Your task to perform on an android device: set the stopwatch Image 0: 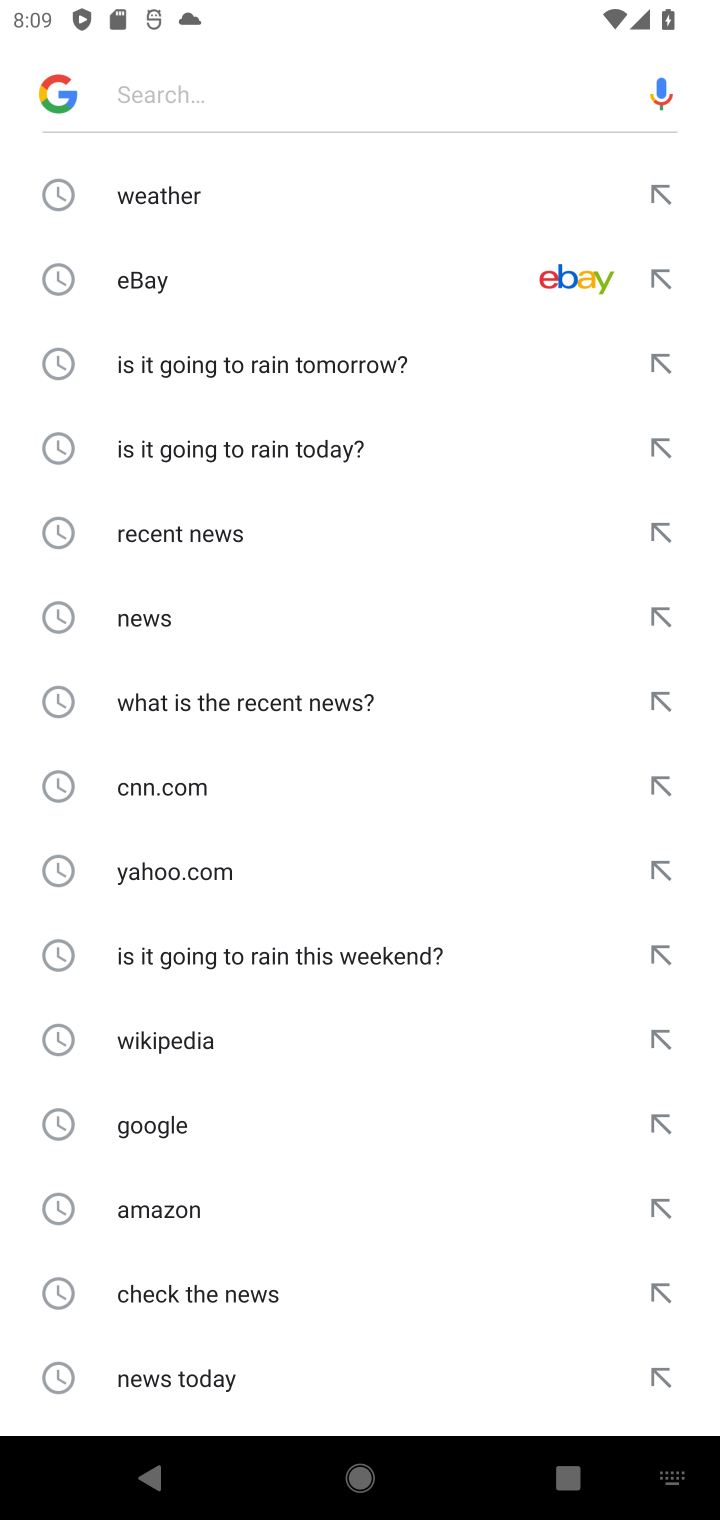
Step 0: press home button
Your task to perform on an android device: set the stopwatch Image 1: 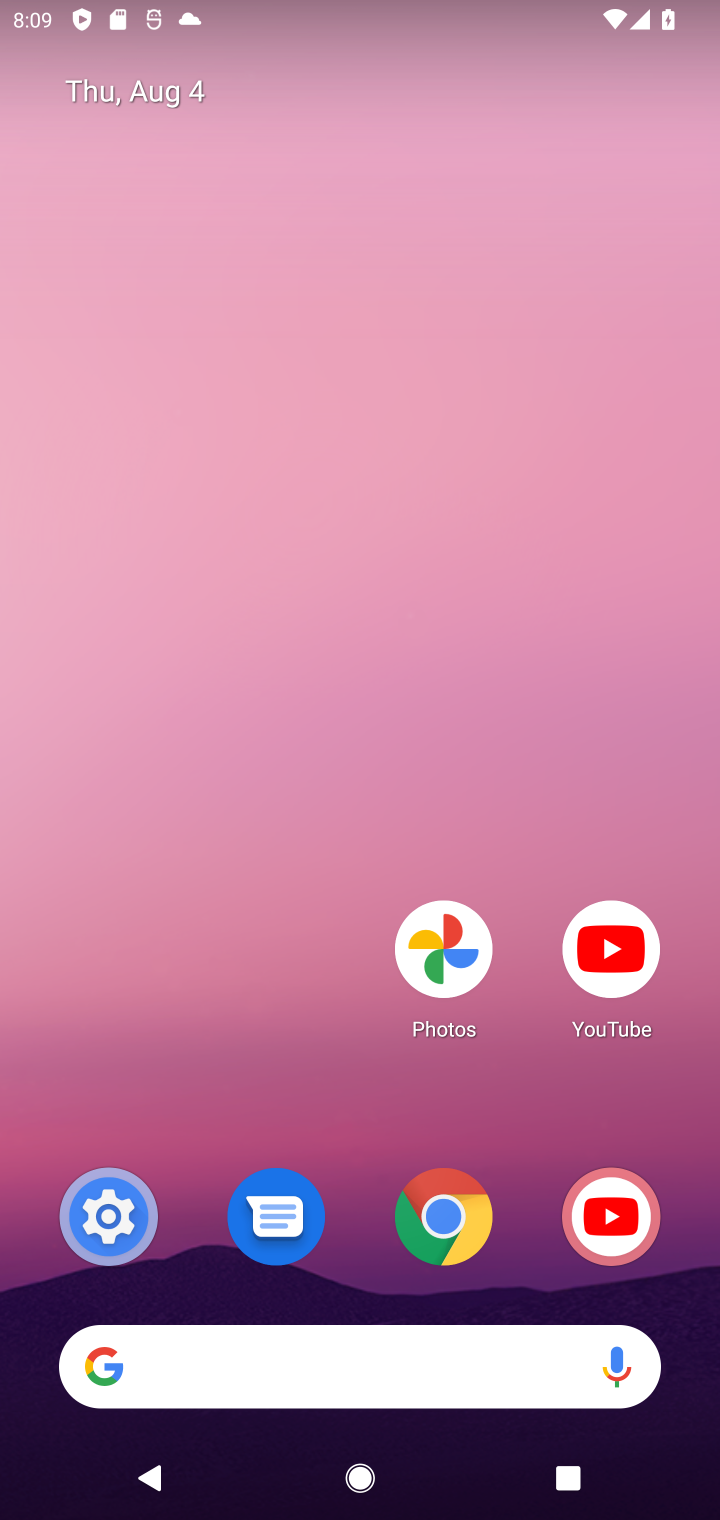
Step 1: drag from (366, 1316) to (270, 434)
Your task to perform on an android device: set the stopwatch Image 2: 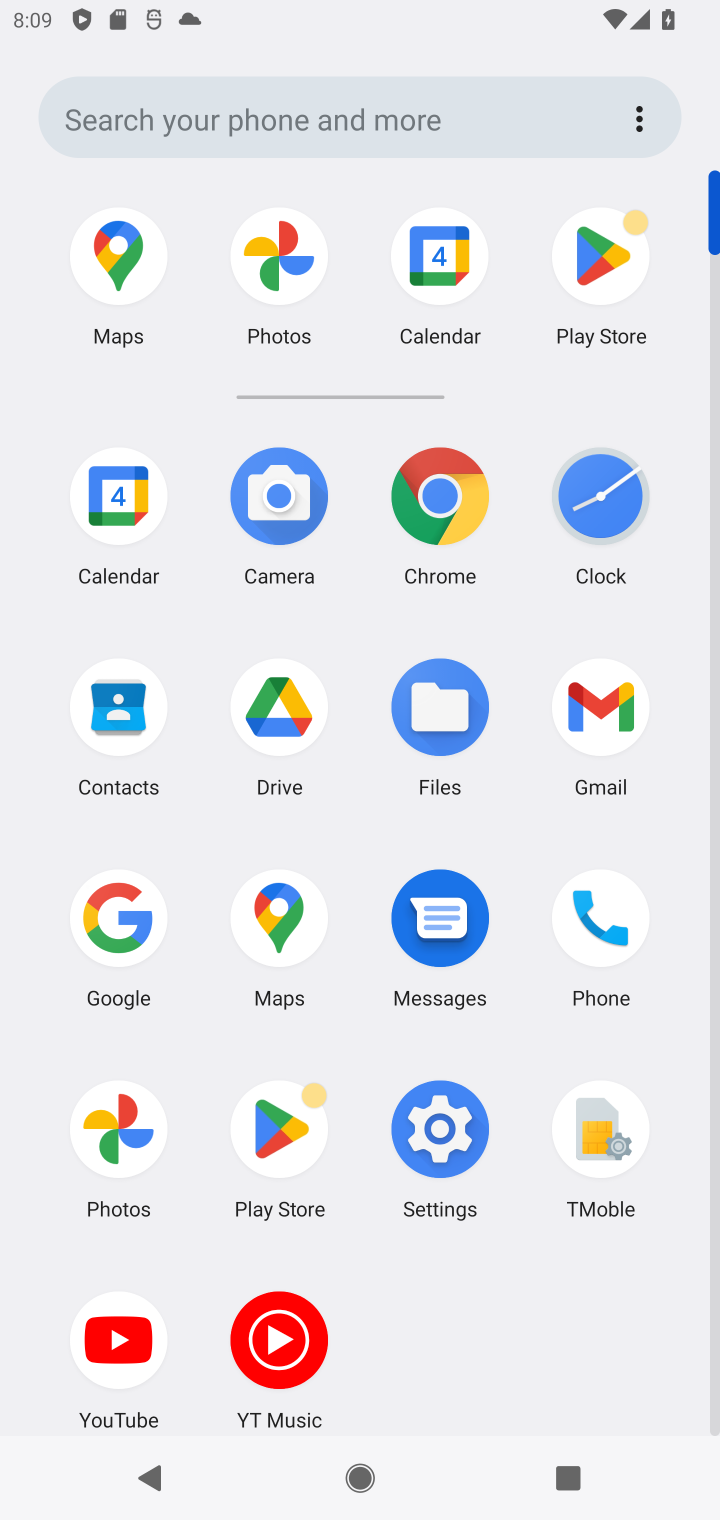
Step 2: click (597, 496)
Your task to perform on an android device: set the stopwatch Image 3: 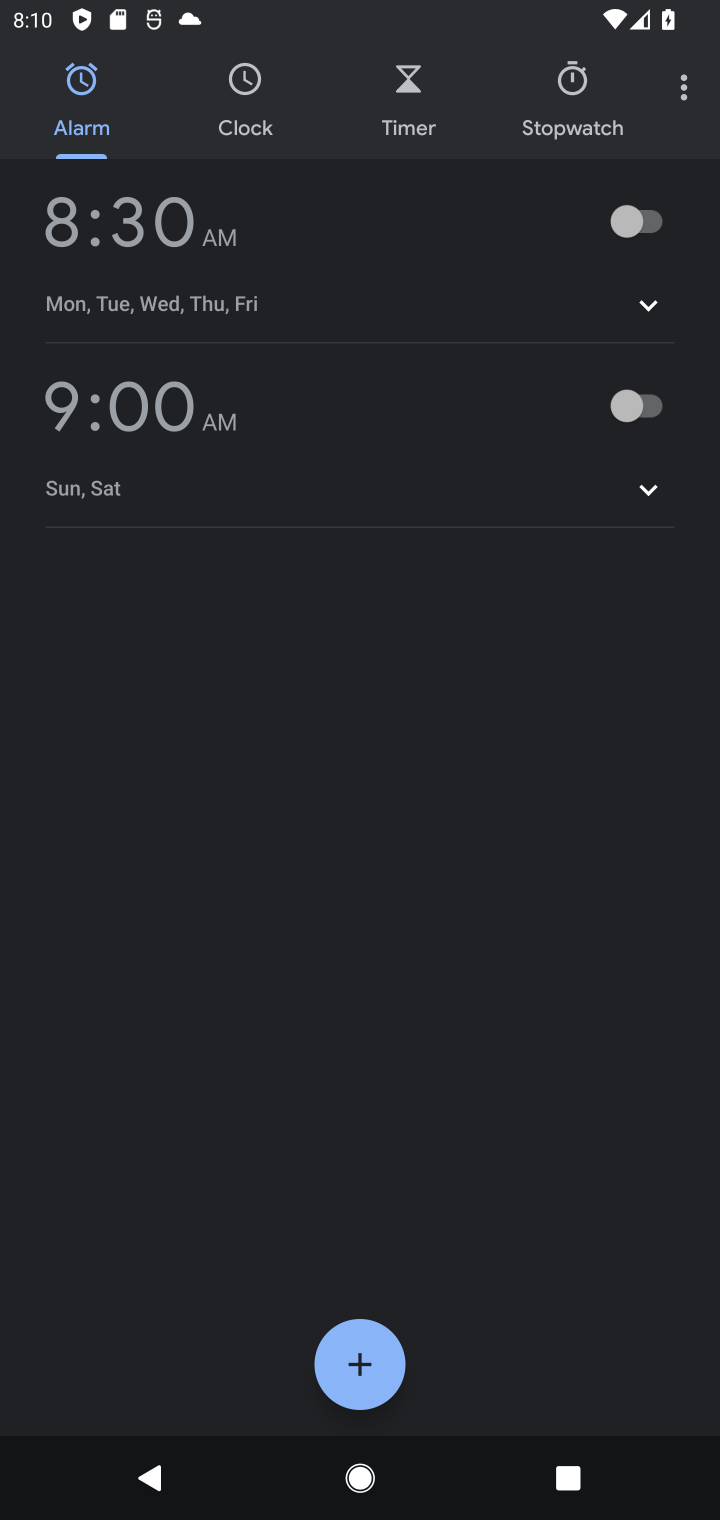
Step 3: click (568, 89)
Your task to perform on an android device: set the stopwatch Image 4: 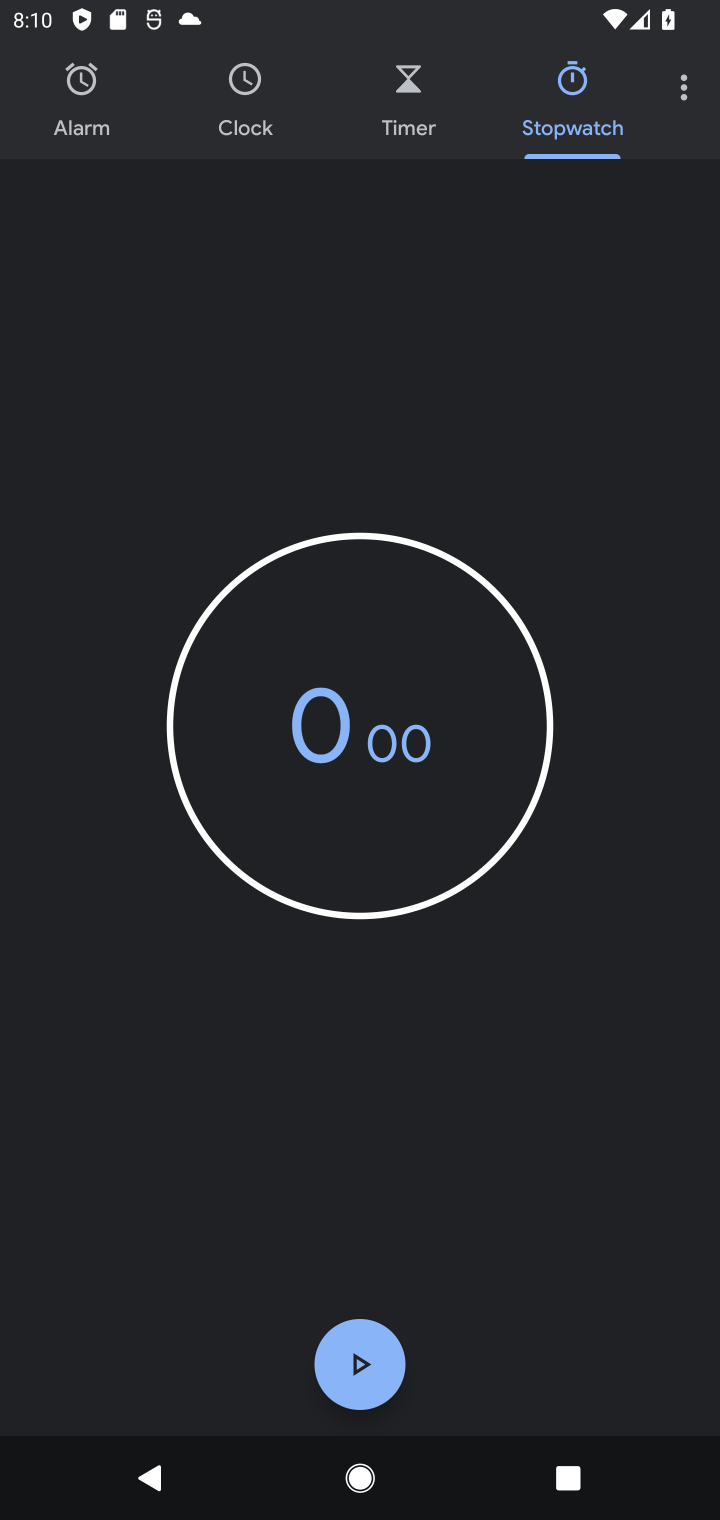
Step 4: click (384, 708)
Your task to perform on an android device: set the stopwatch Image 5: 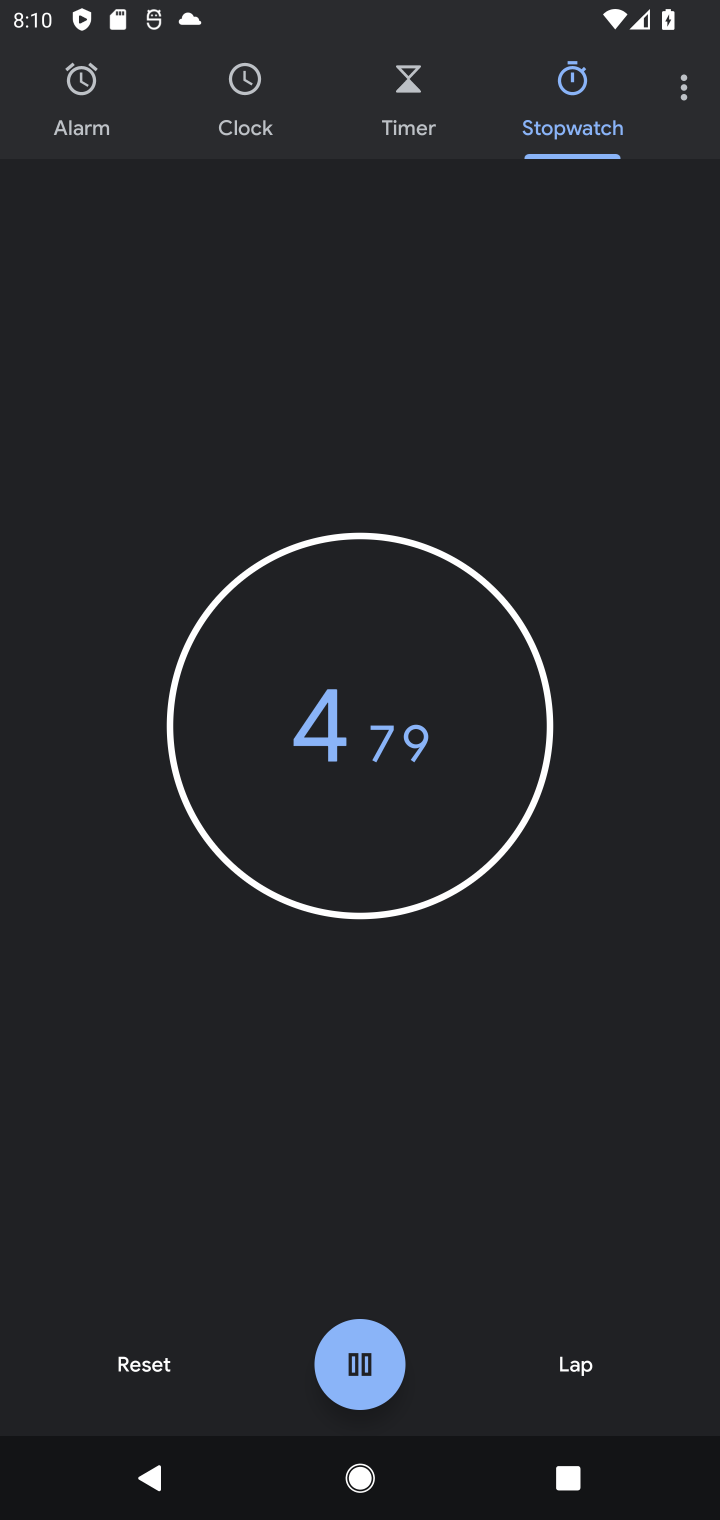
Step 5: click (338, 821)
Your task to perform on an android device: set the stopwatch Image 6: 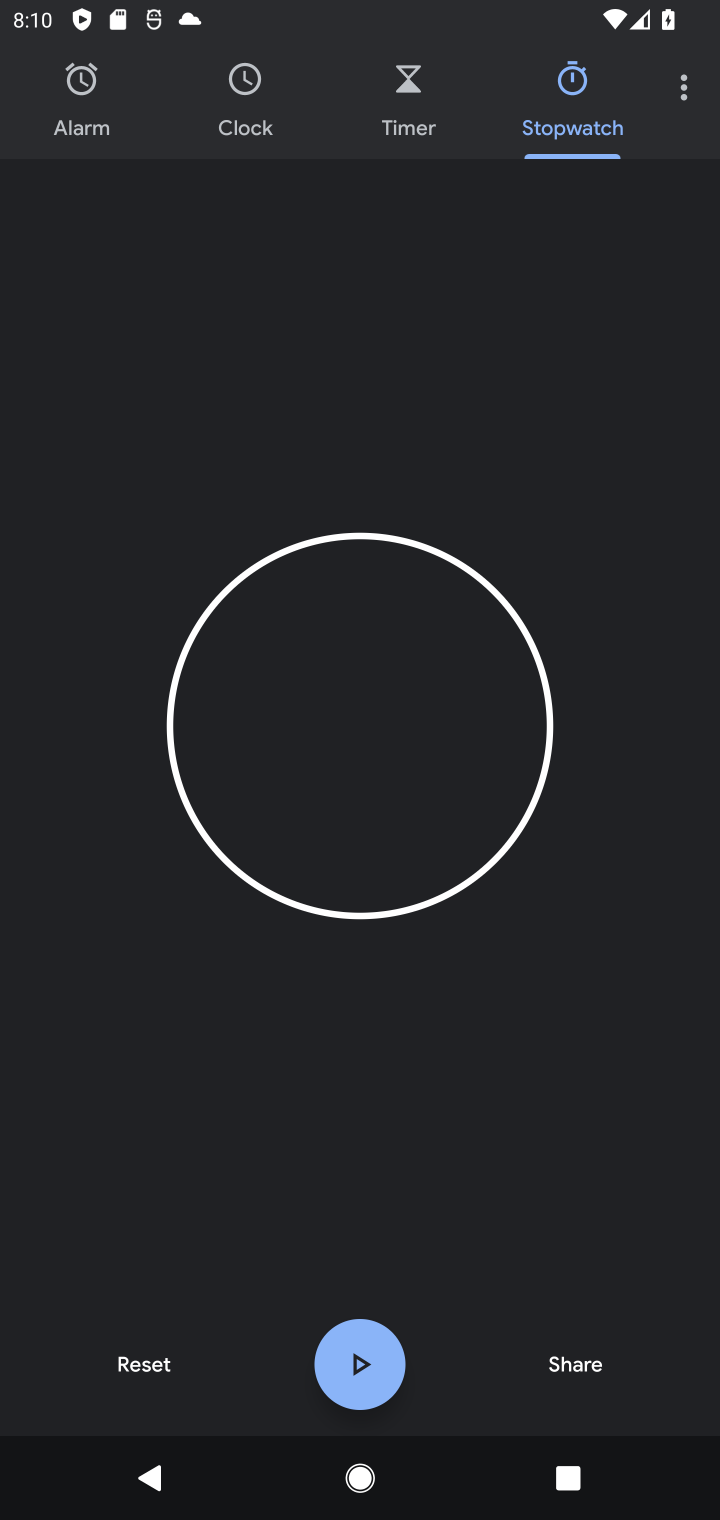
Step 6: task complete